Your task to perform on an android device: change the upload size in google photos Image 0: 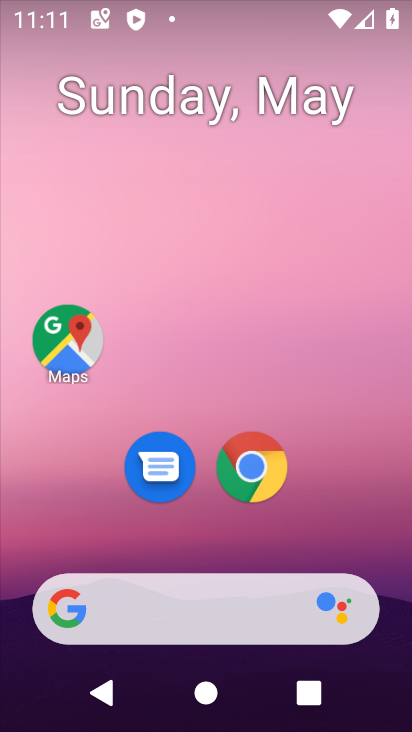
Step 0: drag from (381, 536) to (326, 725)
Your task to perform on an android device: change the upload size in google photos Image 1: 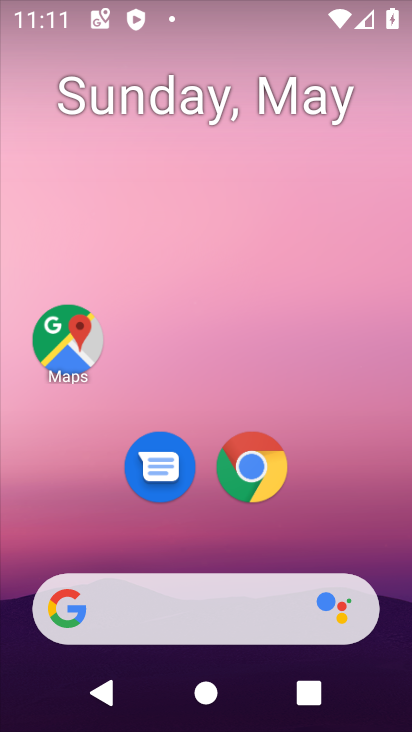
Step 1: drag from (386, 580) to (411, 0)
Your task to perform on an android device: change the upload size in google photos Image 2: 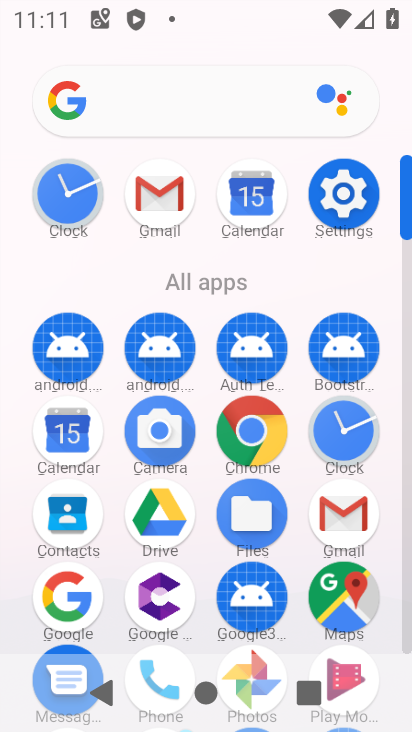
Step 2: drag from (405, 540) to (403, 489)
Your task to perform on an android device: change the upload size in google photos Image 3: 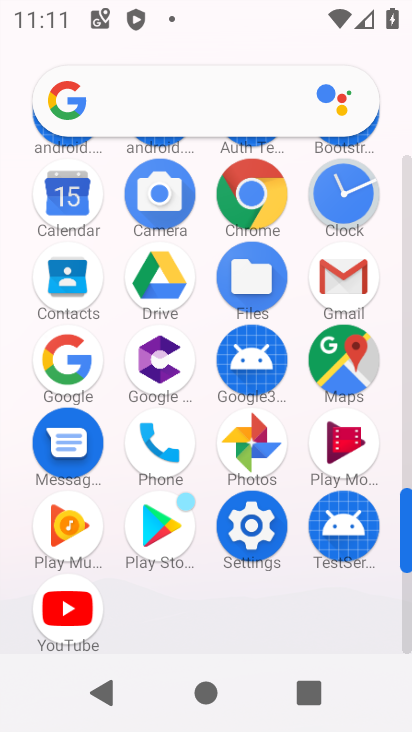
Step 3: click (254, 440)
Your task to perform on an android device: change the upload size in google photos Image 4: 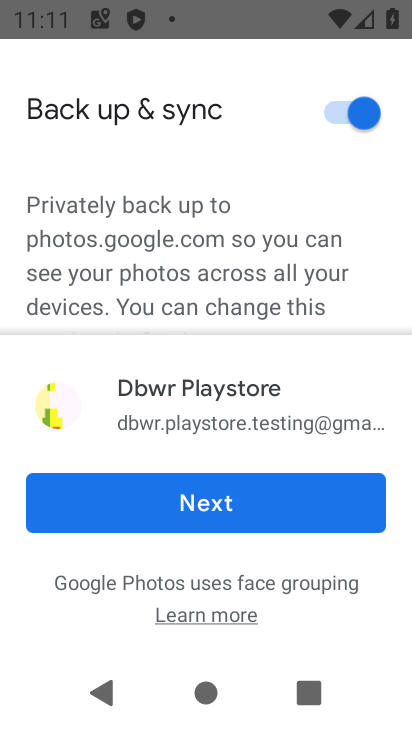
Step 4: click (210, 505)
Your task to perform on an android device: change the upload size in google photos Image 5: 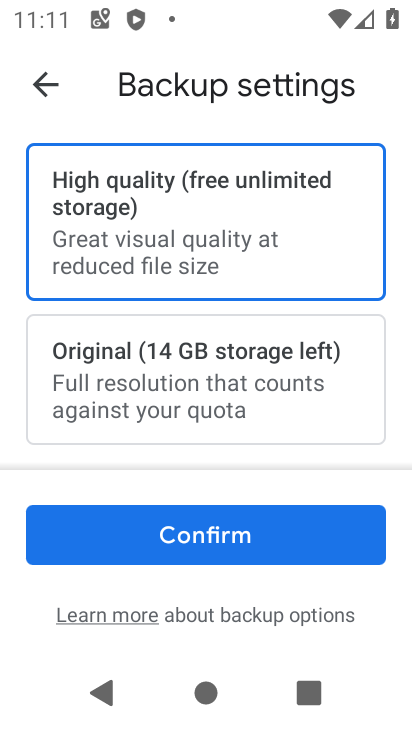
Step 5: click (204, 537)
Your task to perform on an android device: change the upload size in google photos Image 6: 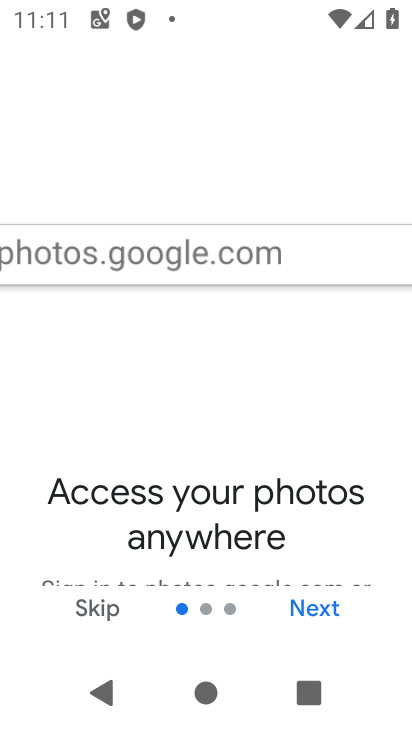
Step 6: click (74, 612)
Your task to perform on an android device: change the upload size in google photos Image 7: 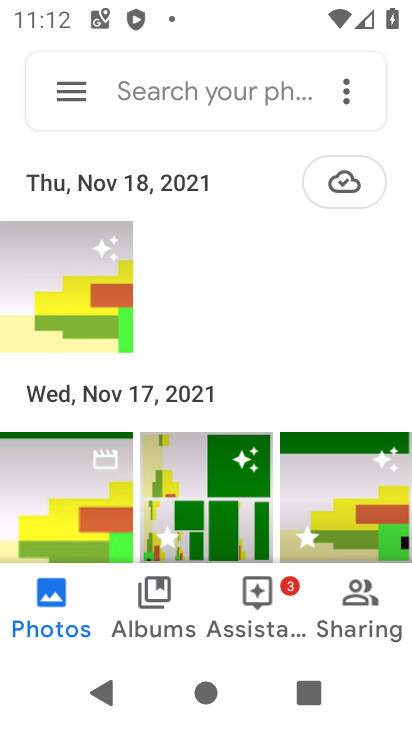
Step 7: click (75, 95)
Your task to perform on an android device: change the upload size in google photos Image 8: 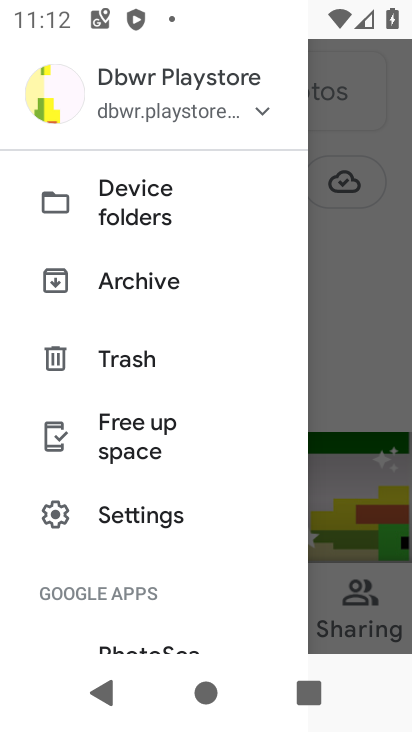
Step 8: drag from (193, 512) to (187, 207)
Your task to perform on an android device: change the upload size in google photos Image 9: 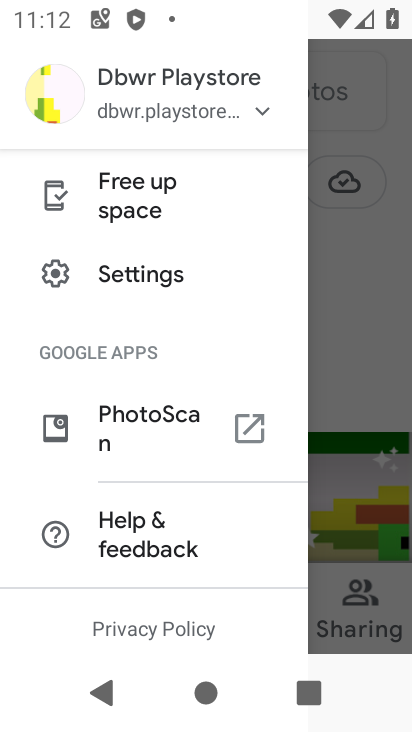
Step 9: click (143, 279)
Your task to perform on an android device: change the upload size in google photos Image 10: 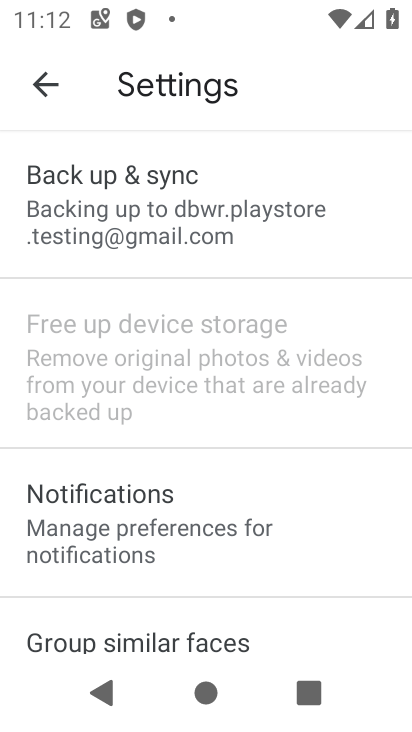
Step 10: click (145, 202)
Your task to perform on an android device: change the upload size in google photos Image 11: 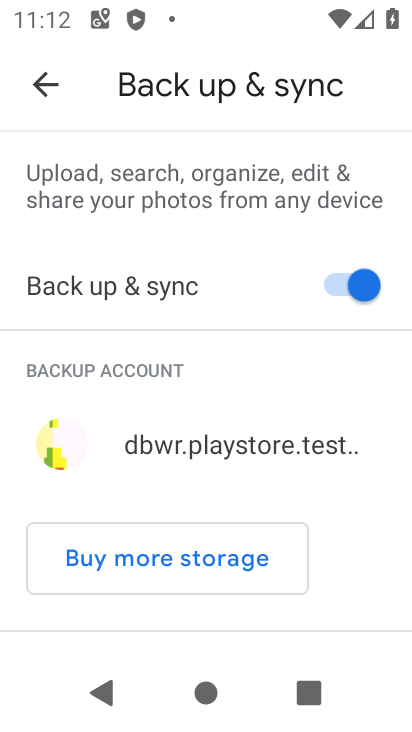
Step 11: drag from (224, 463) to (221, 82)
Your task to perform on an android device: change the upload size in google photos Image 12: 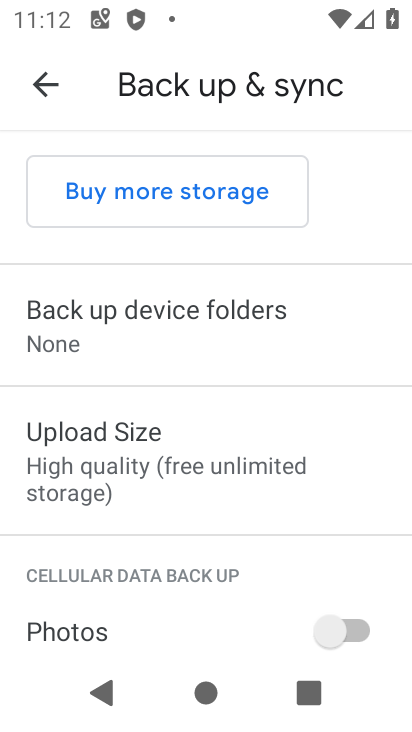
Step 12: drag from (212, 578) to (212, 187)
Your task to perform on an android device: change the upload size in google photos Image 13: 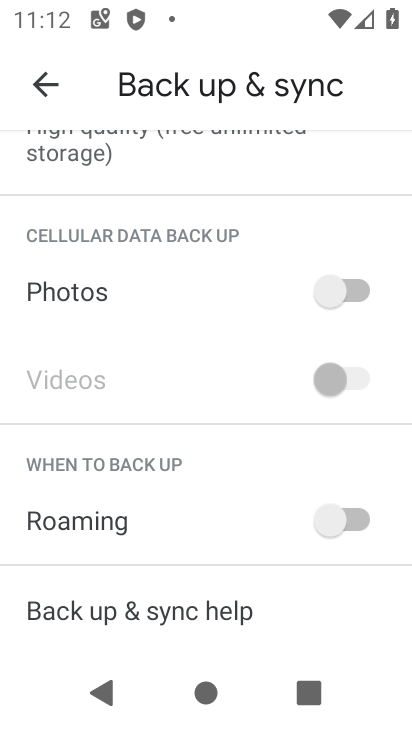
Step 13: drag from (193, 235) to (233, 528)
Your task to perform on an android device: change the upload size in google photos Image 14: 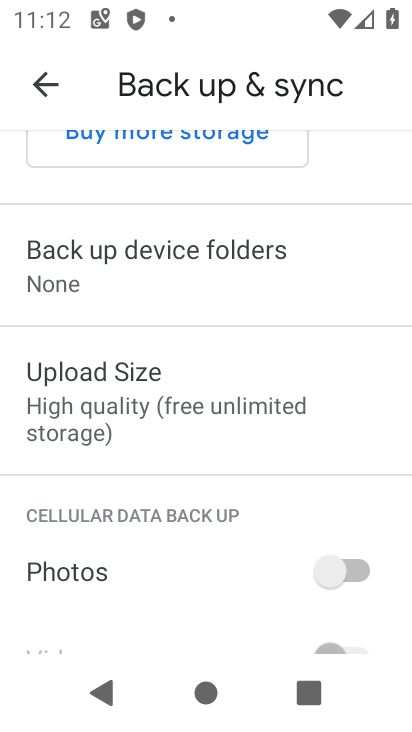
Step 14: click (108, 418)
Your task to perform on an android device: change the upload size in google photos Image 15: 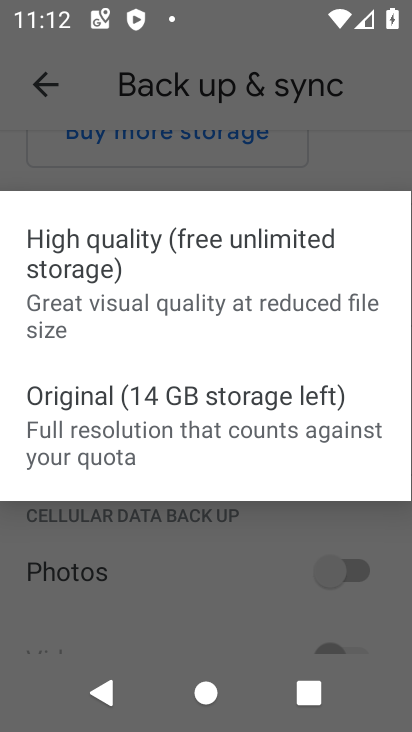
Step 15: click (108, 418)
Your task to perform on an android device: change the upload size in google photos Image 16: 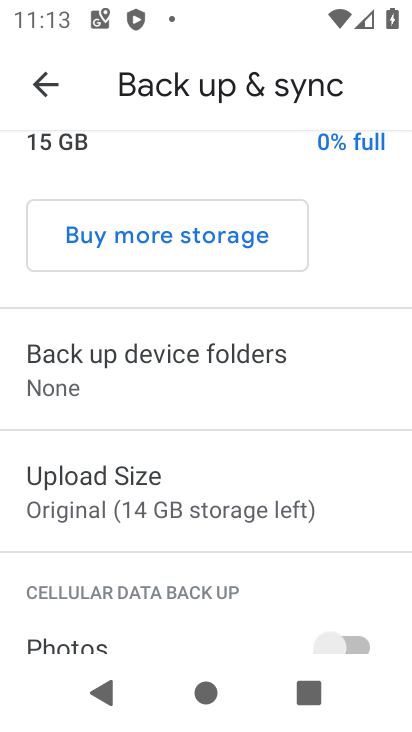
Step 16: task complete